Your task to perform on an android device: change the clock style Image 0: 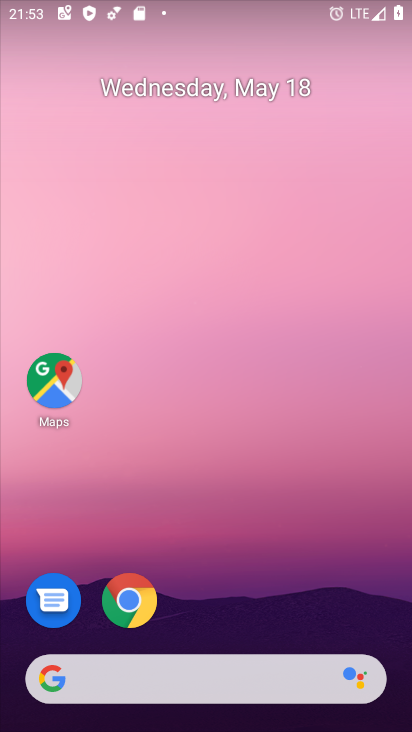
Step 0: drag from (222, 616) to (247, 51)
Your task to perform on an android device: change the clock style Image 1: 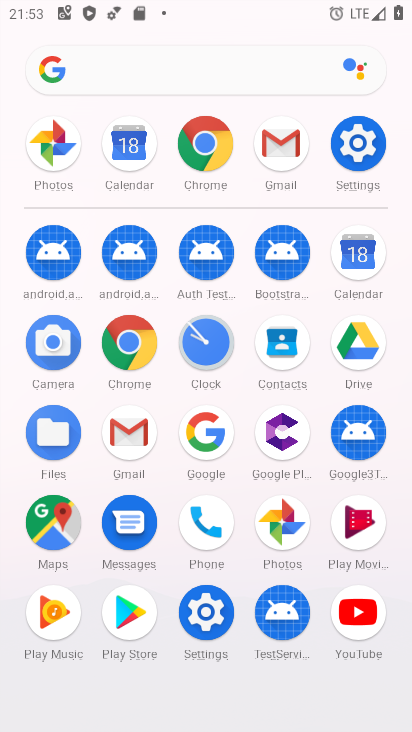
Step 1: click (212, 351)
Your task to perform on an android device: change the clock style Image 2: 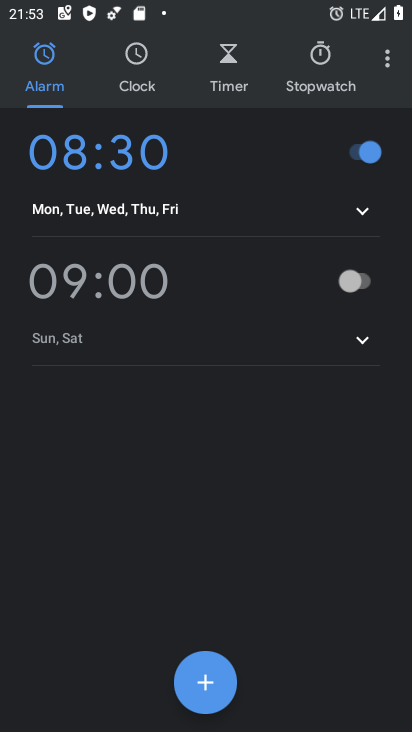
Step 2: click (377, 62)
Your task to perform on an android device: change the clock style Image 3: 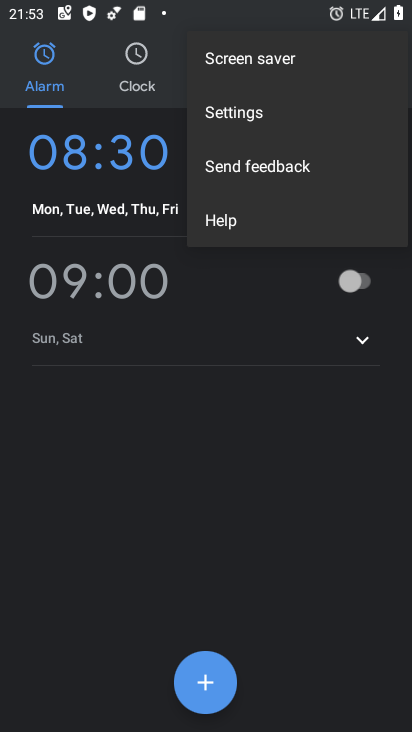
Step 3: click (266, 121)
Your task to perform on an android device: change the clock style Image 4: 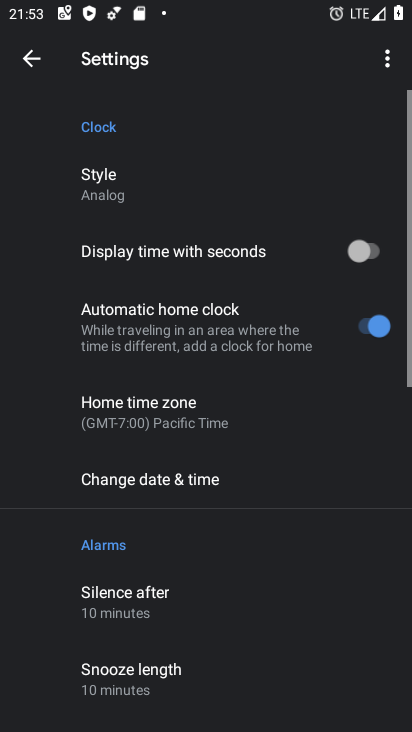
Step 4: click (148, 176)
Your task to perform on an android device: change the clock style Image 5: 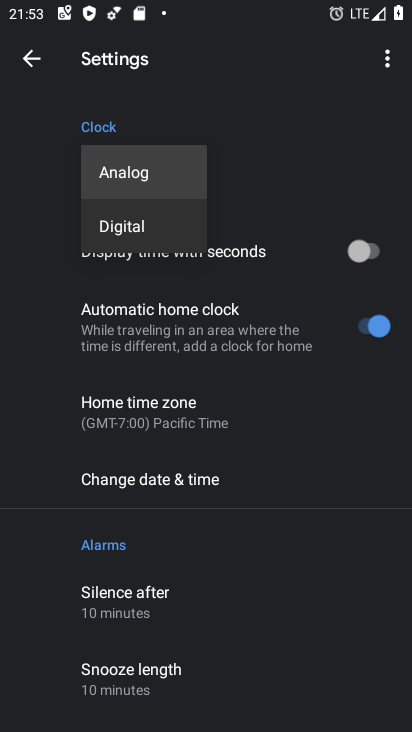
Step 5: click (128, 228)
Your task to perform on an android device: change the clock style Image 6: 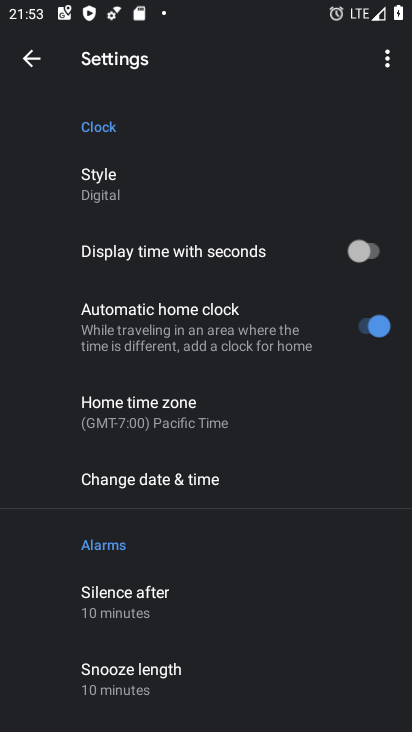
Step 6: task complete